Your task to perform on an android device: Open wifi settings Image 0: 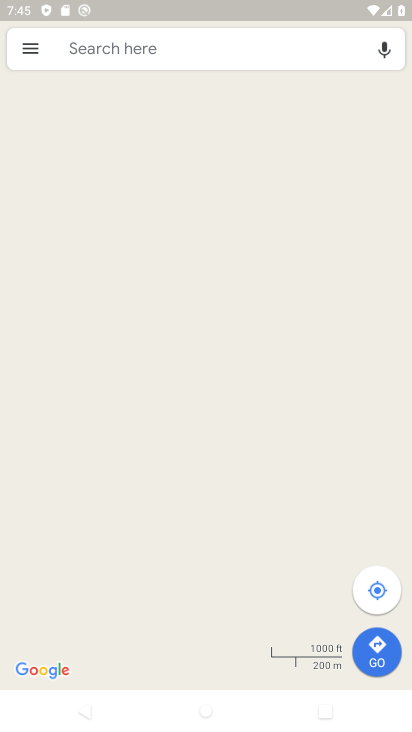
Step 0: press home button
Your task to perform on an android device: Open wifi settings Image 1: 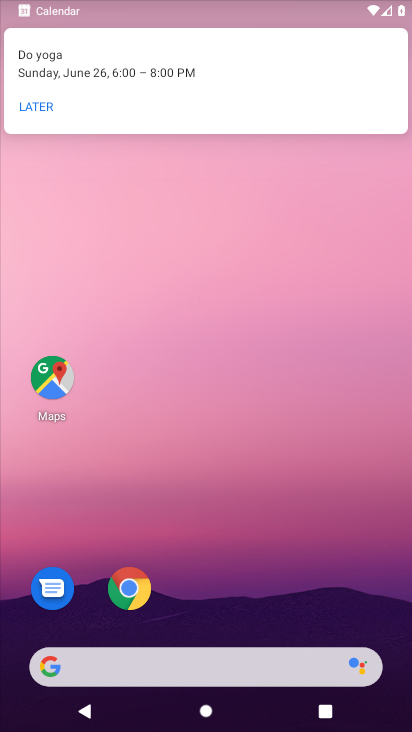
Step 1: drag from (197, 571) to (226, 111)
Your task to perform on an android device: Open wifi settings Image 2: 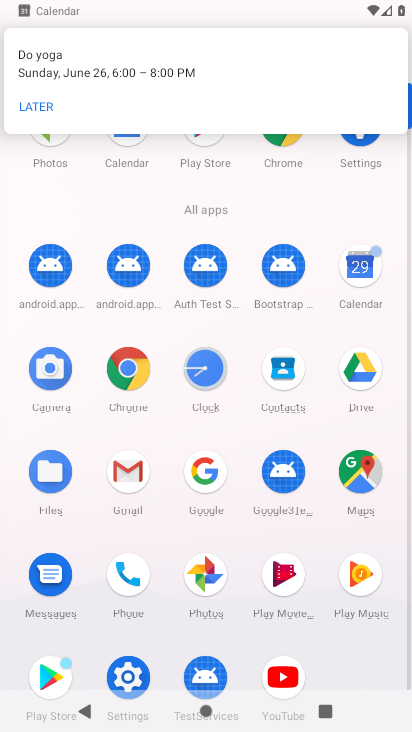
Step 2: click (353, 142)
Your task to perform on an android device: Open wifi settings Image 3: 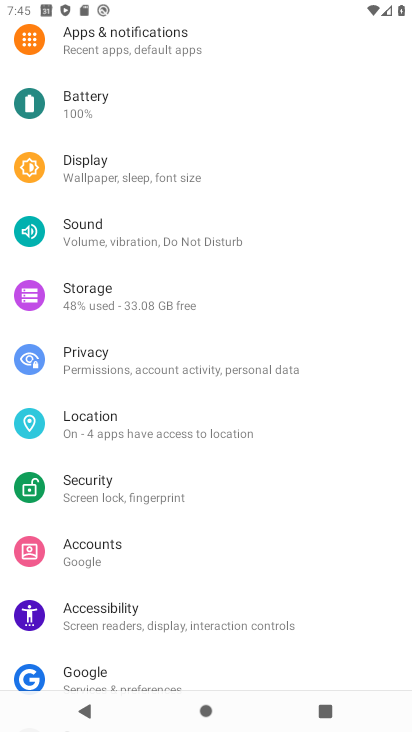
Step 3: drag from (140, 89) to (235, 452)
Your task to perform on an android device: Open wifi settings Image 4: 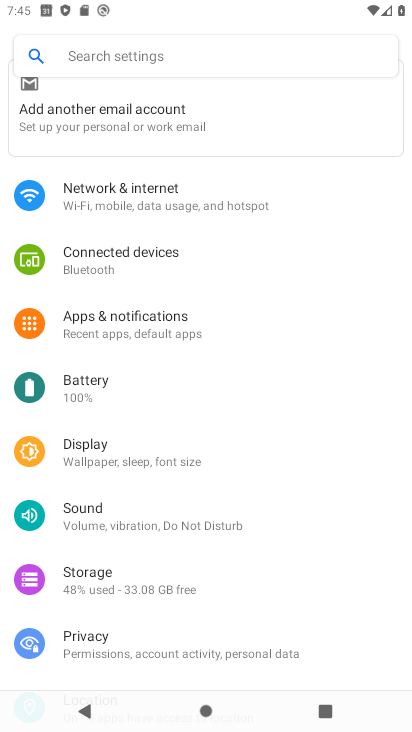
Step 4: click (111, 190)
Your task to perform on an android device: Open wifi settings Image 5: 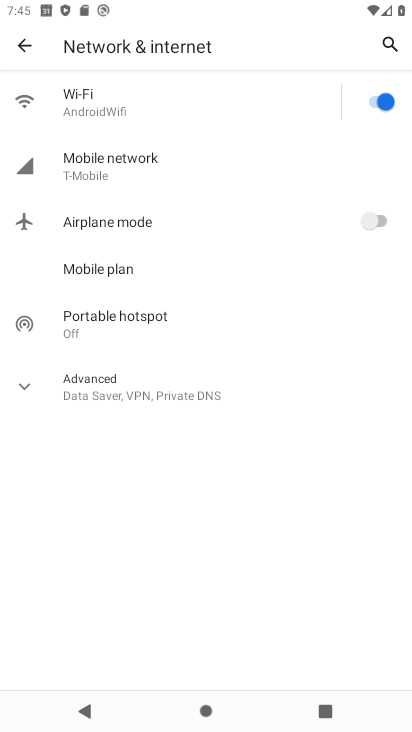
Step 5: click (119, 112)
Your task to perform on an android device: Open wifi settings Image 6: 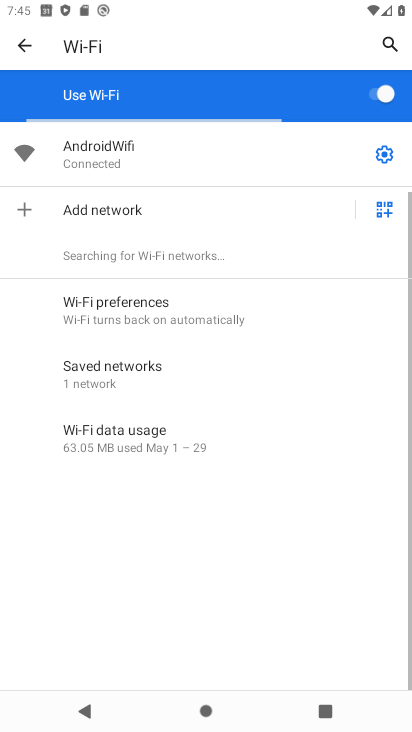
Step 6: click (112, 146)
Your task to perform on an android device: Open wifi settings Image 7: 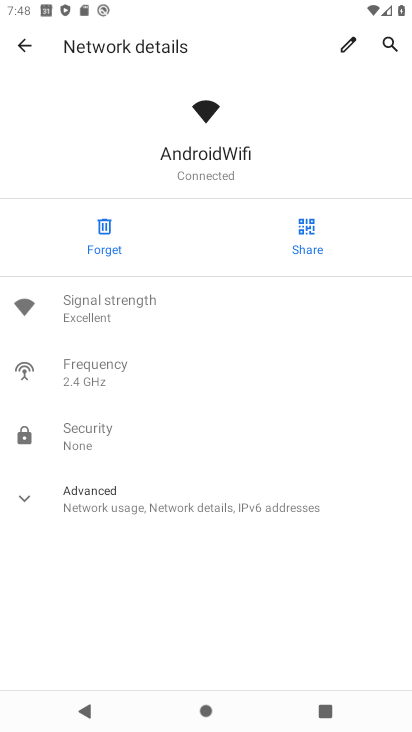
Step 7: task complete